Your task to perform on an android device: Open Amazon Image 0: 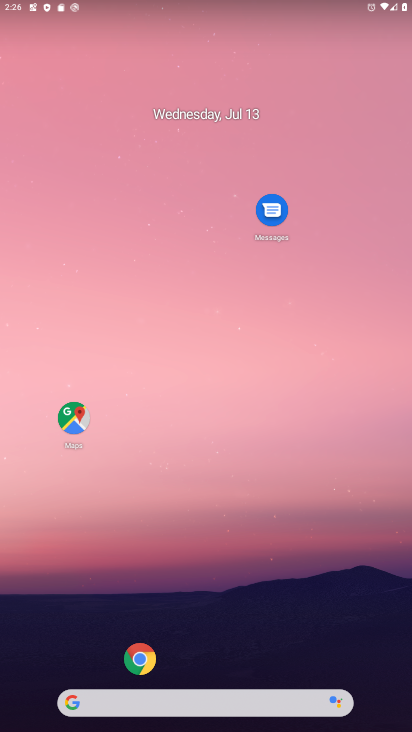
Step 0: click (184, 703)
Your task to perform on an android device: Open Amazon Image 1: 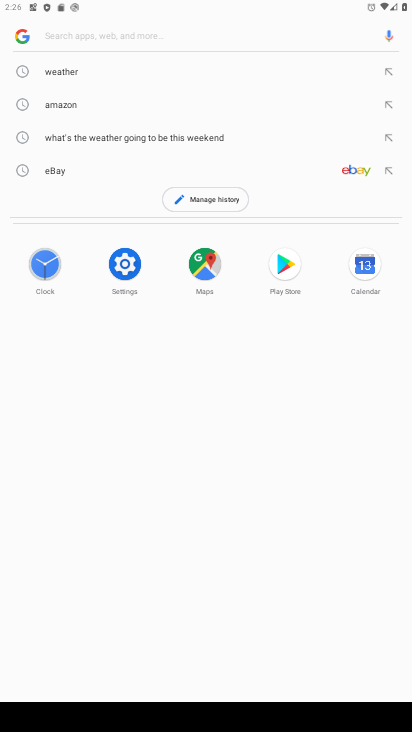
Step 1: type "Amazon"
Your task to perform on an android device: Open Amazon Image 2: 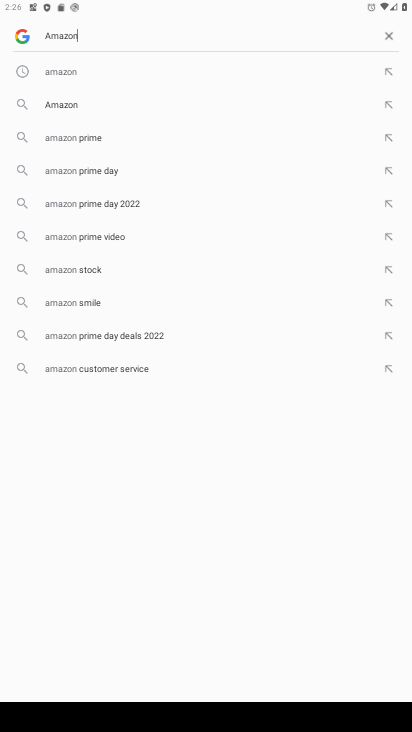
Step 2: type ""
Your task to perform on an android device: Open Amazon Image 3: 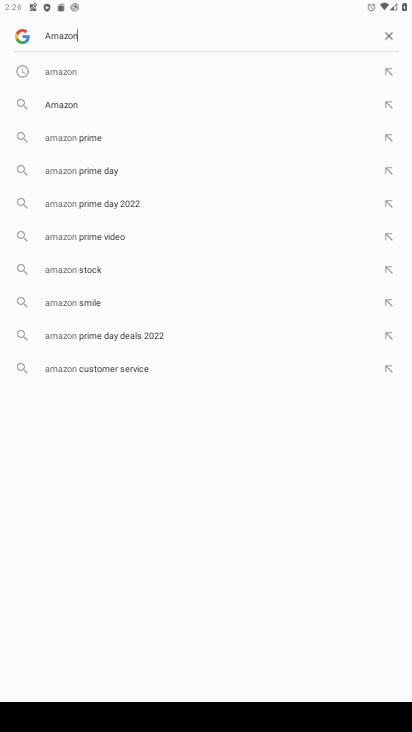
Step 3: click (75, 64)
Your task to perform on an android device: Open Amazon Image 4: 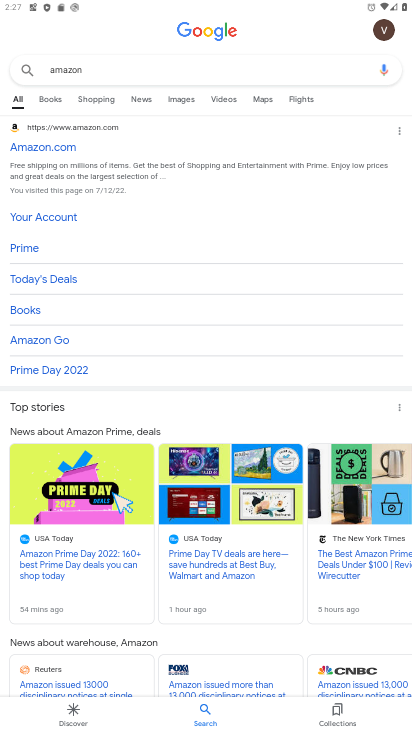
Step 4: task complete